Your task to perform on an android device: turn off location Image 0: 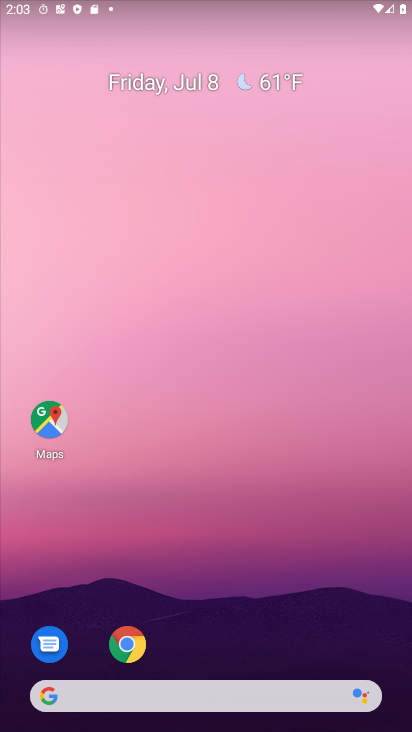
Step 0: drag from (195, 636) to (195, 6)
Your task to perform on an android device: turn off location Image 1: 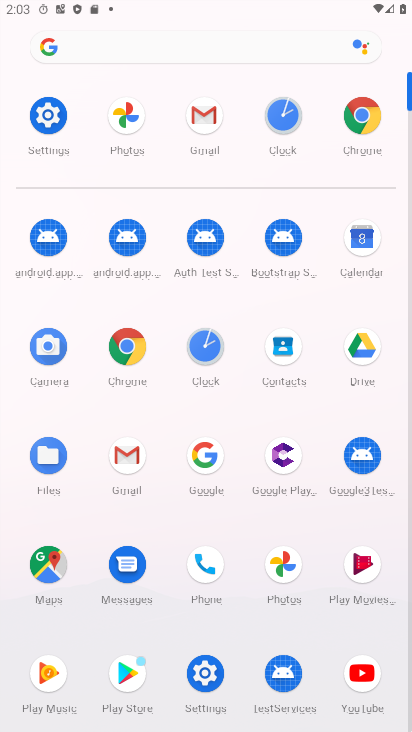
Step 1: click (189, 53)
Your task to perform on an android device: turn off location Image 2: 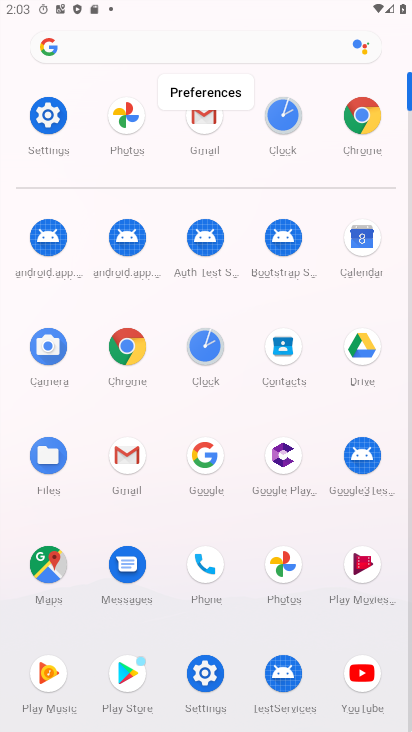
Step 2: click (52, 130)
Your task to perform on an android device: turn off location Image 3: 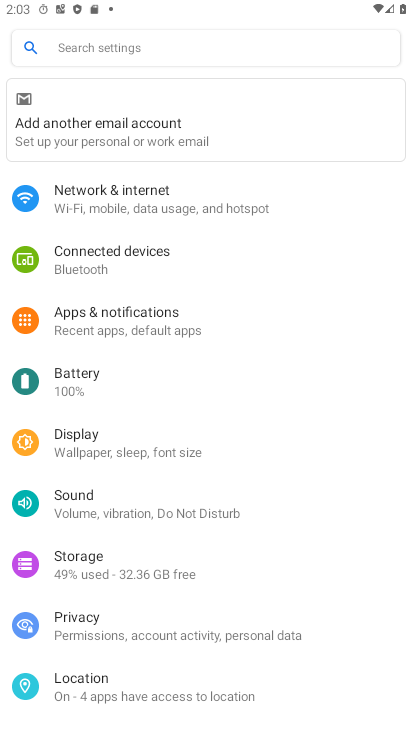
Step 3: click (45, 109)
Your task to perform on an android device: turn off location Image 4: 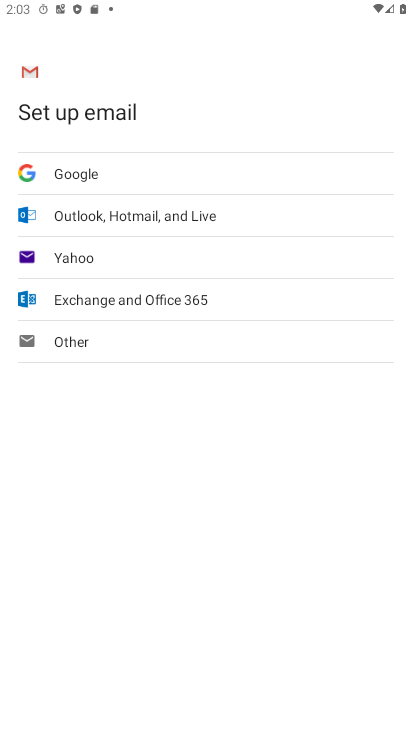
Step 4: press back button
Your task to perform on an android device: turn off location Image 5: 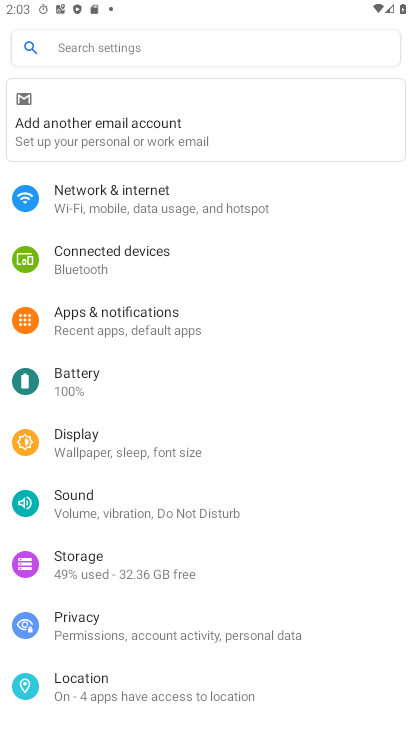
Step 5: click (73, 683)
Your task to perform on an android device: turn off location Image 6: 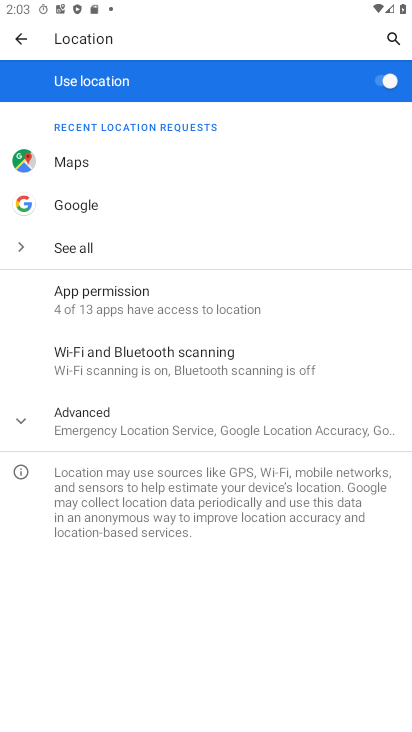
Step 6: click (379, 72)
Your task to perform on an android device: turn off location Image 7: 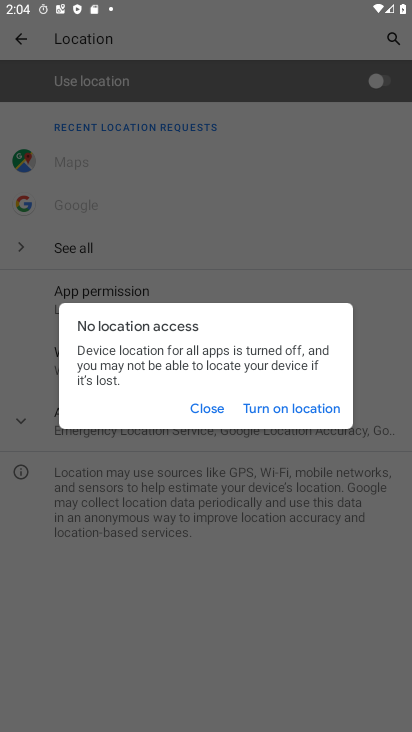
Step 7: task complete